Your task to perform on an android device: turn off airplane mode Image 0: 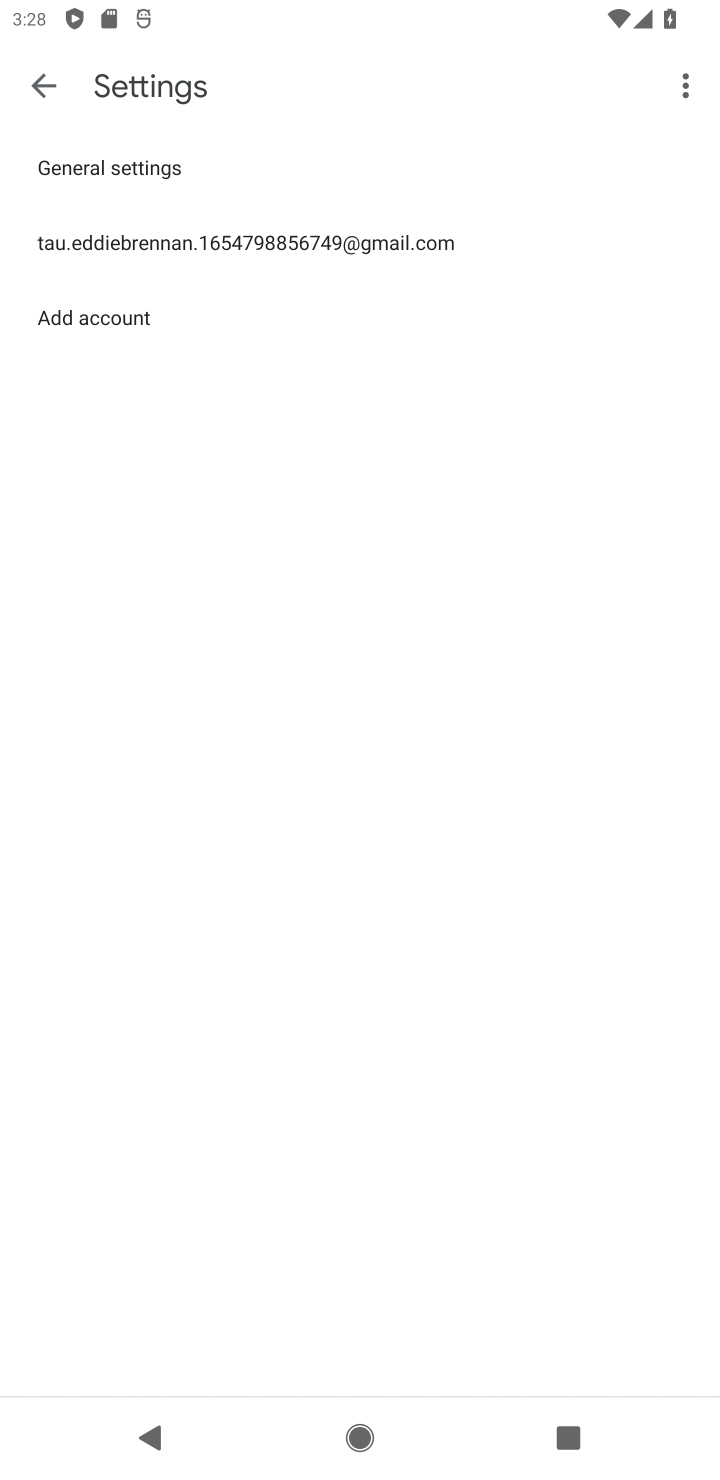
Step 0: press home button
Your task to perform on an android device: turn off airplane mode Image 1: 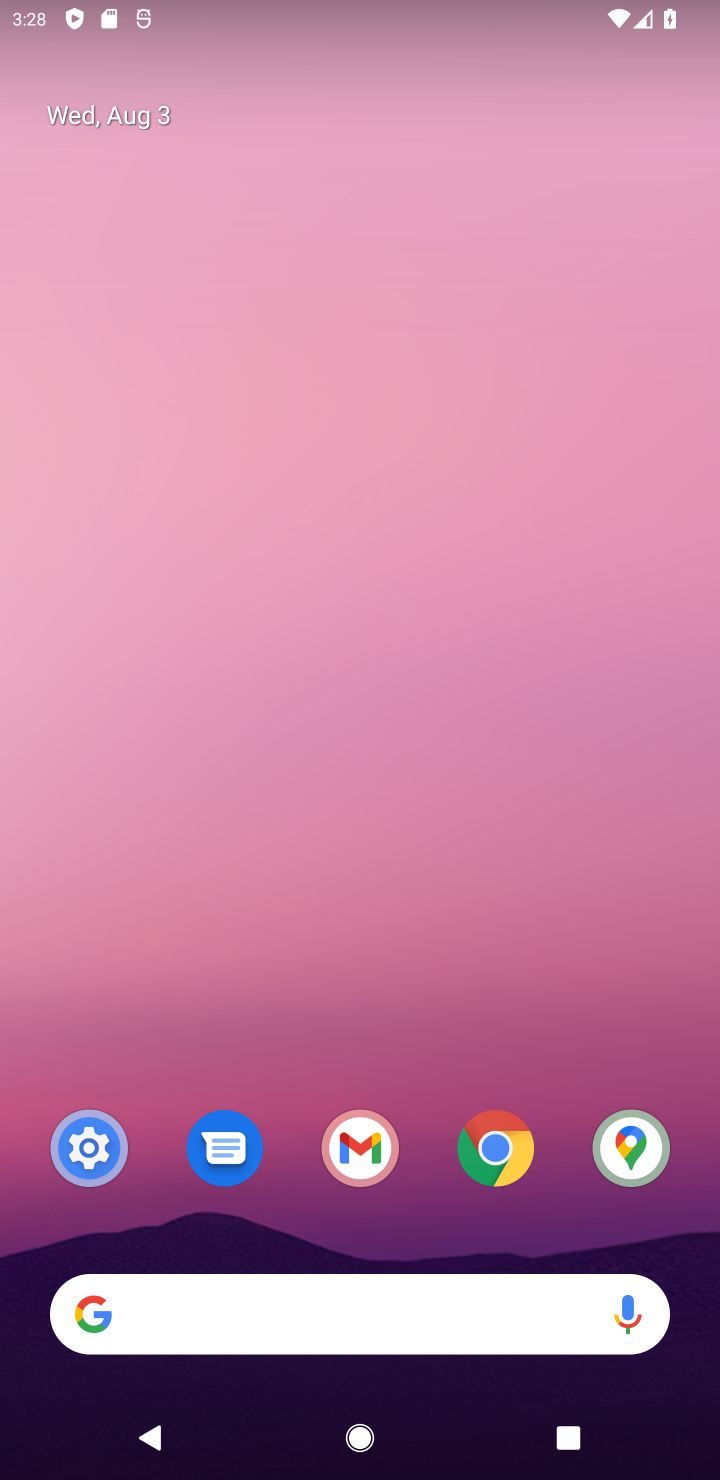
Step 1: drag from (420, 1053) to (439, 62)
Your task to perform on an android device: turn off airplane mode Image 2: 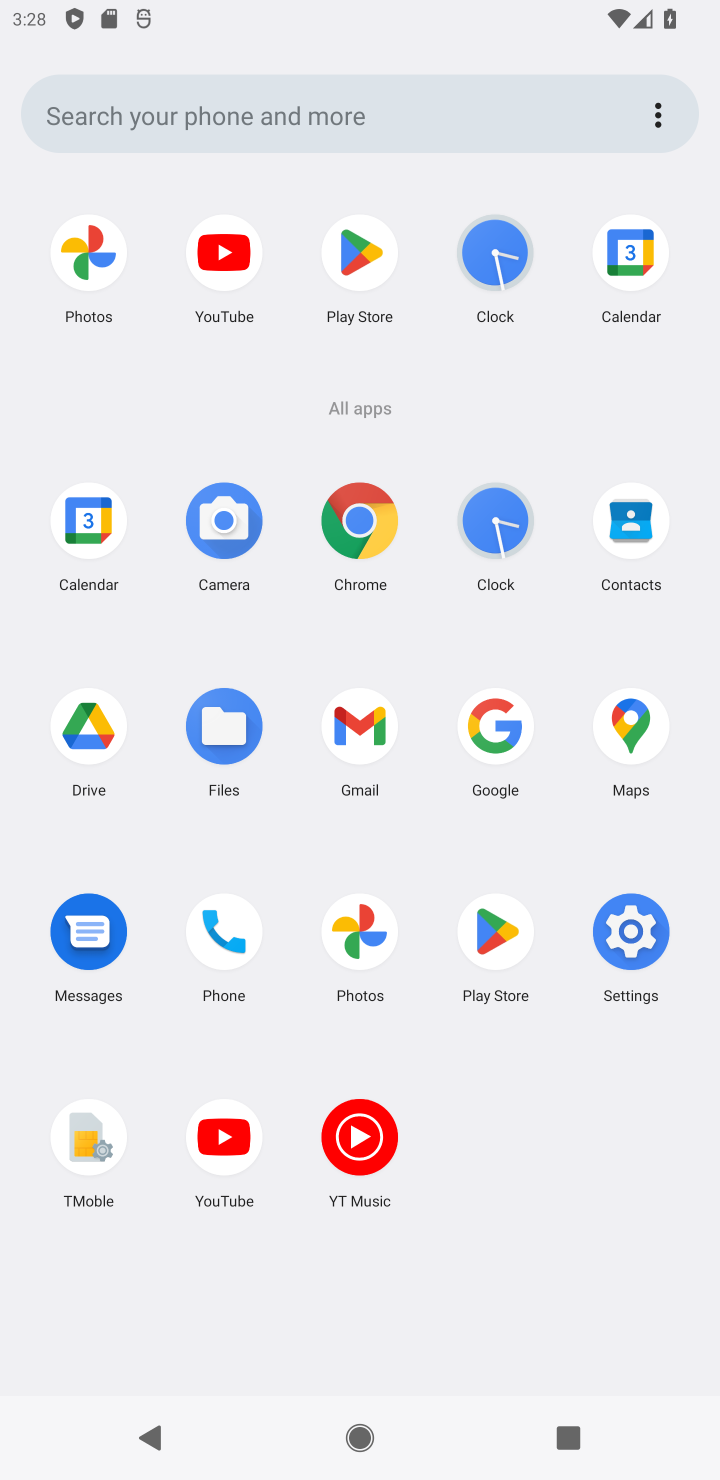
Step 2: click (629, 952)
Your task to perform on an android device: turn off airplane mode Image 3: 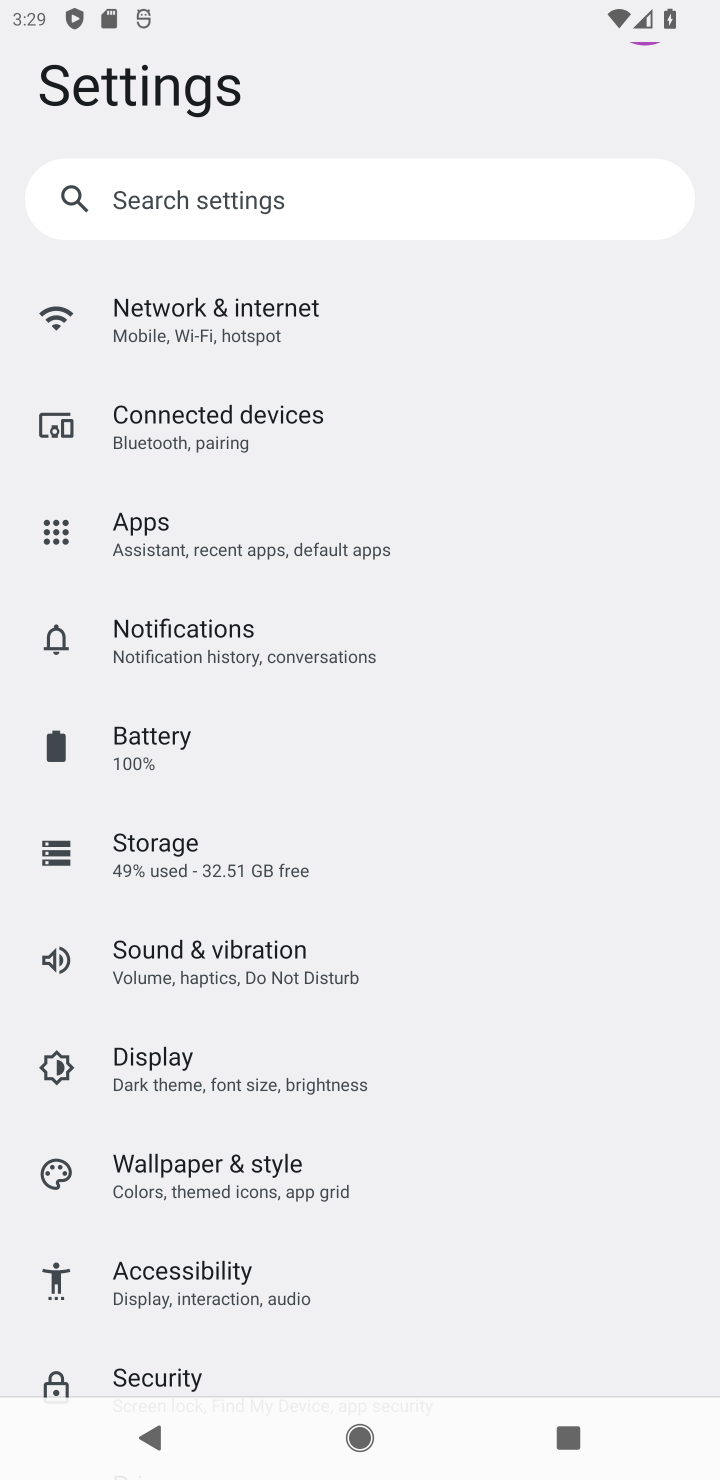
Step 3: drag from (552, 1158) to (569, 917)
Your task to perform on an android device: turn off airplane mode Image 4: 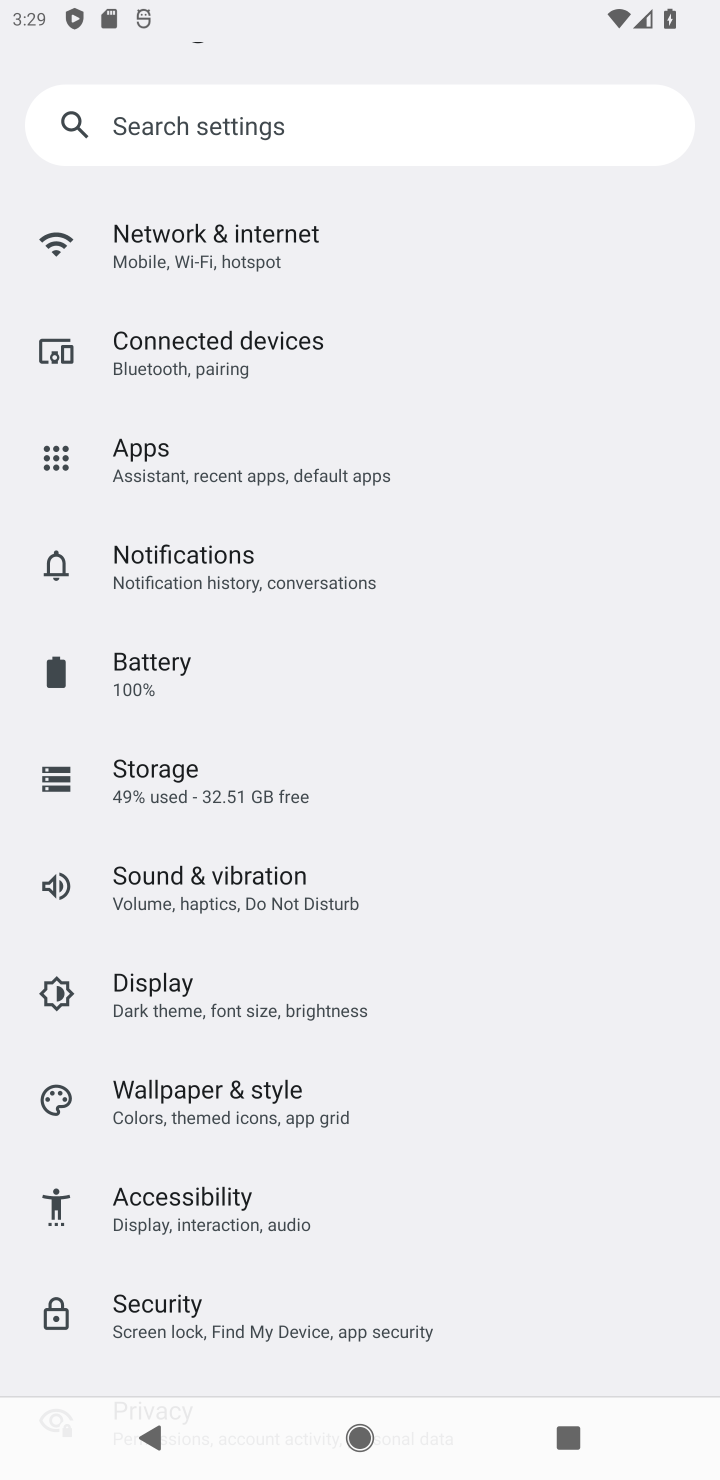
Step 4: drag from (583, 1275) to (615, 855)
Your task to perform on an android device: turn off airplane mode Image 5: 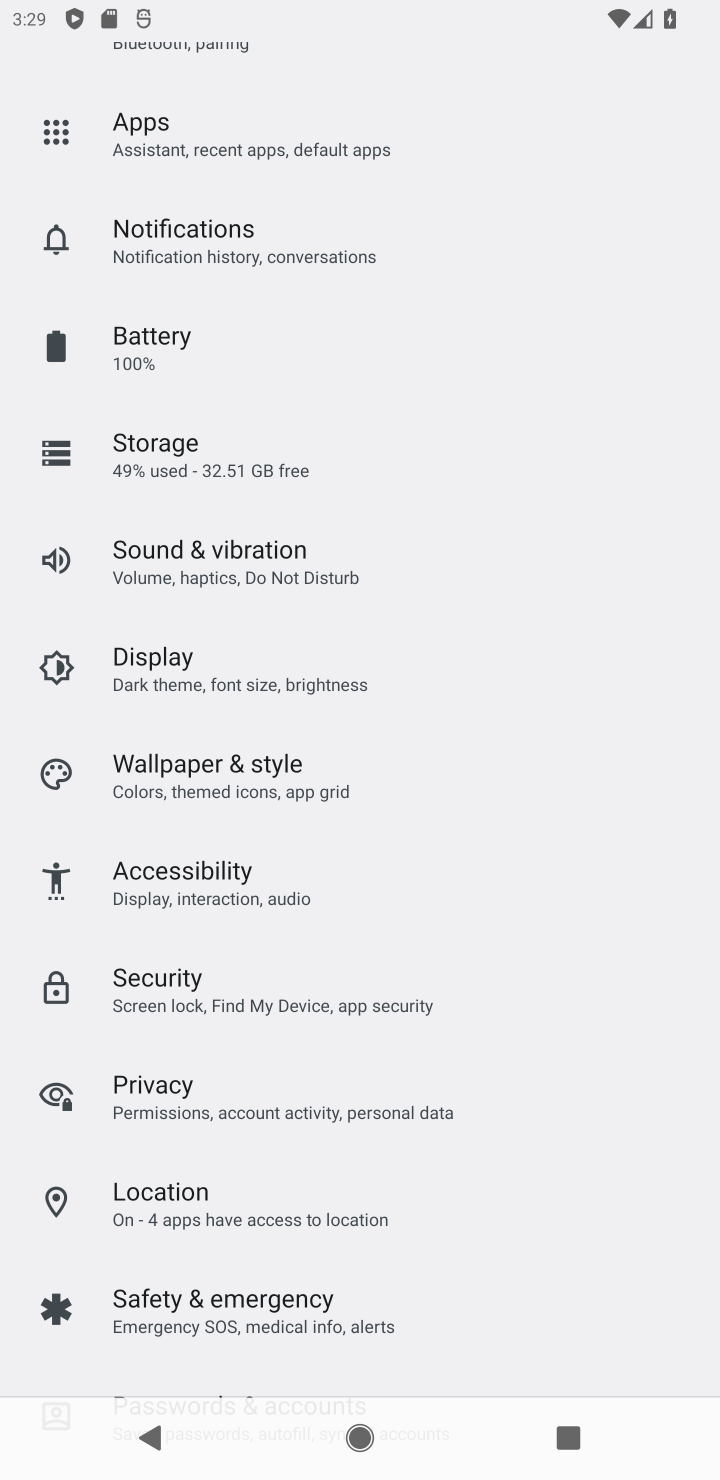
Step 5: drag from (550, 1243) to (577, 913)
Your task to perform on an android device: turn off airplane mode Image 6: 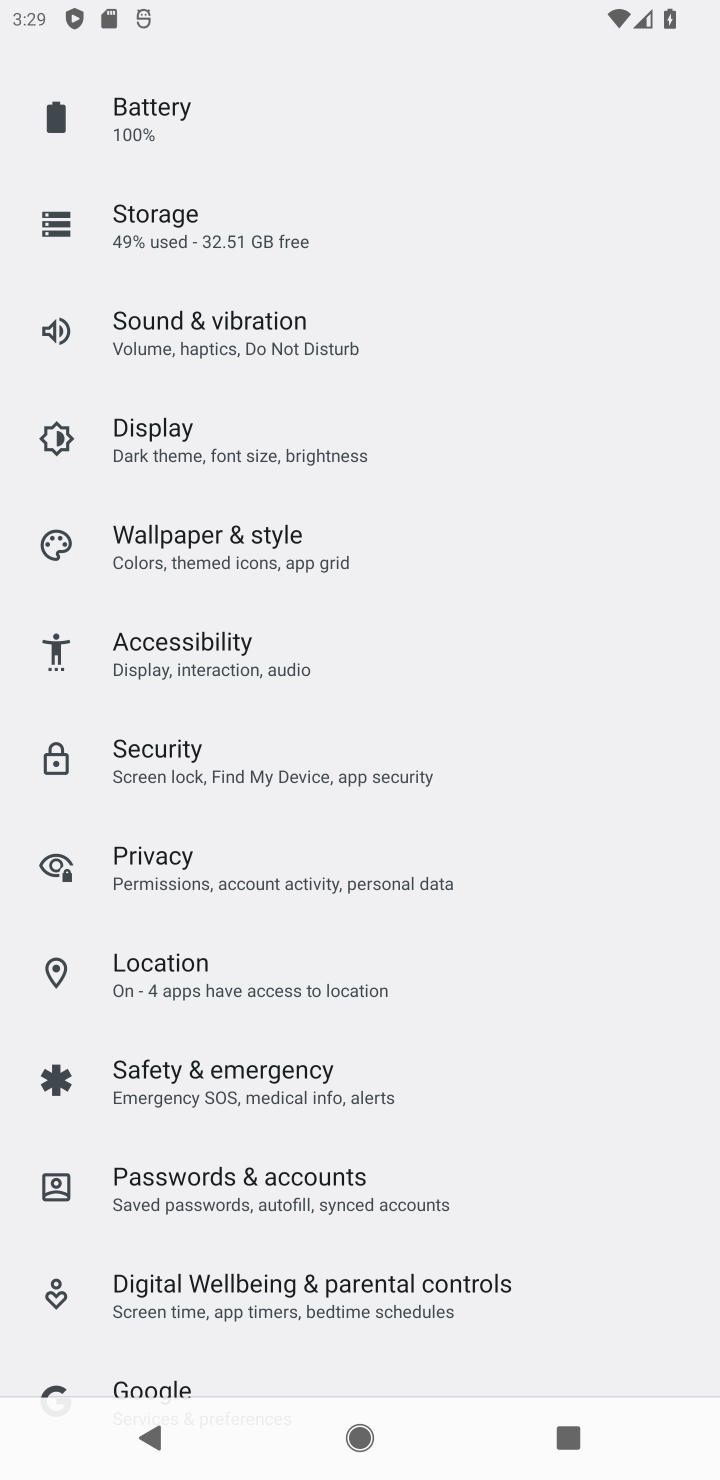
Step 6: drag from (578, 1264) to (619, 867)
Your task to perform on an android device: turn off airplane mode Image 7: 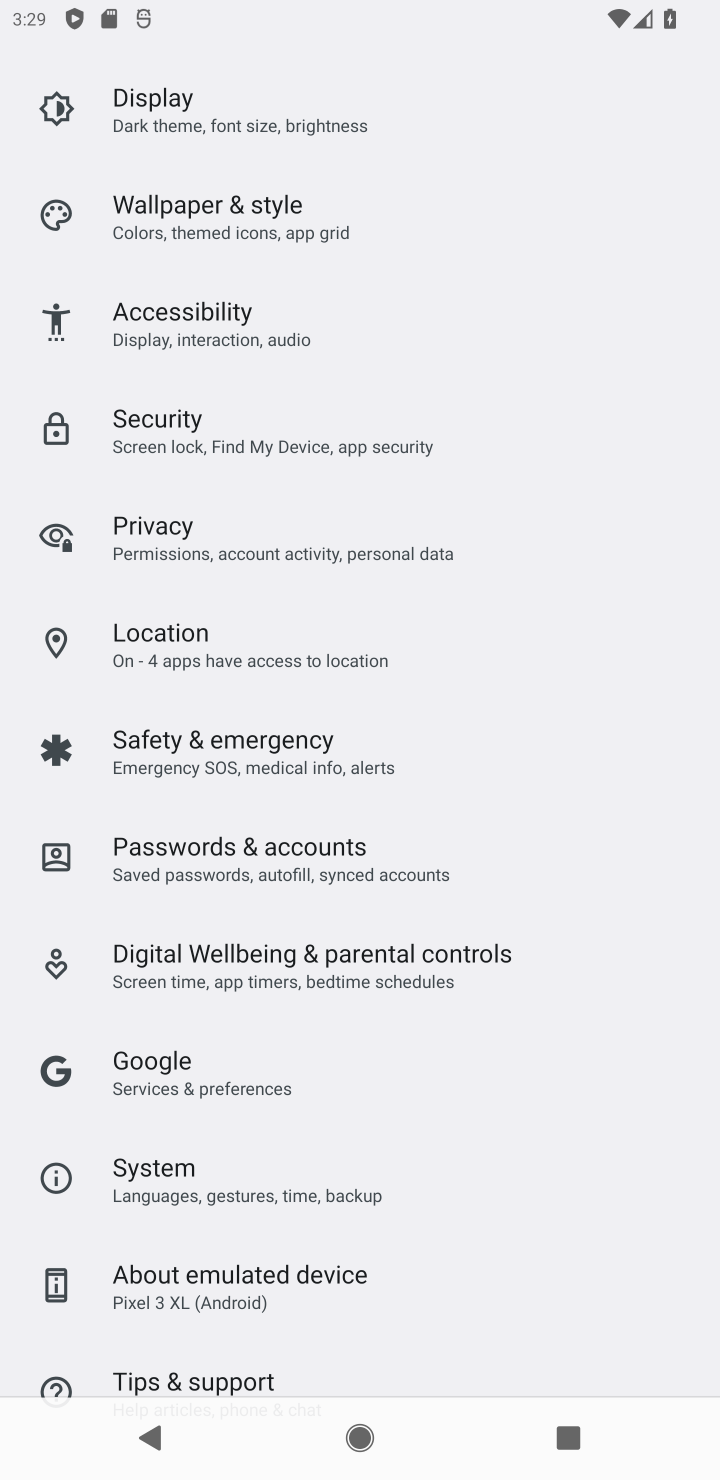
Step 7: drag from (548, 1278) to (612, 682)
Your task to perform on an android device: turn off airplane mode Image 8: 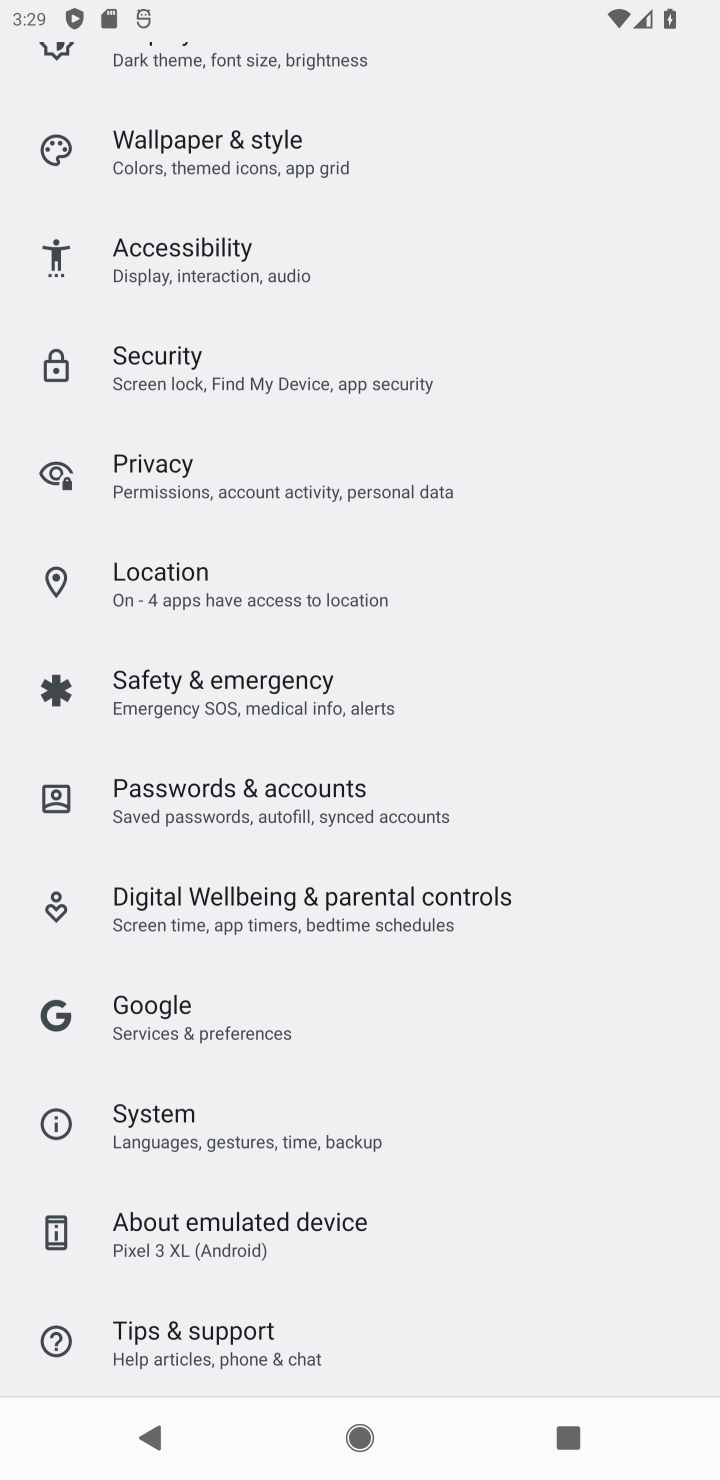
Step 8: drag from (617, 504) to (609, 942)
Your task to perform on an android device: turn off airplane mode Image 9: 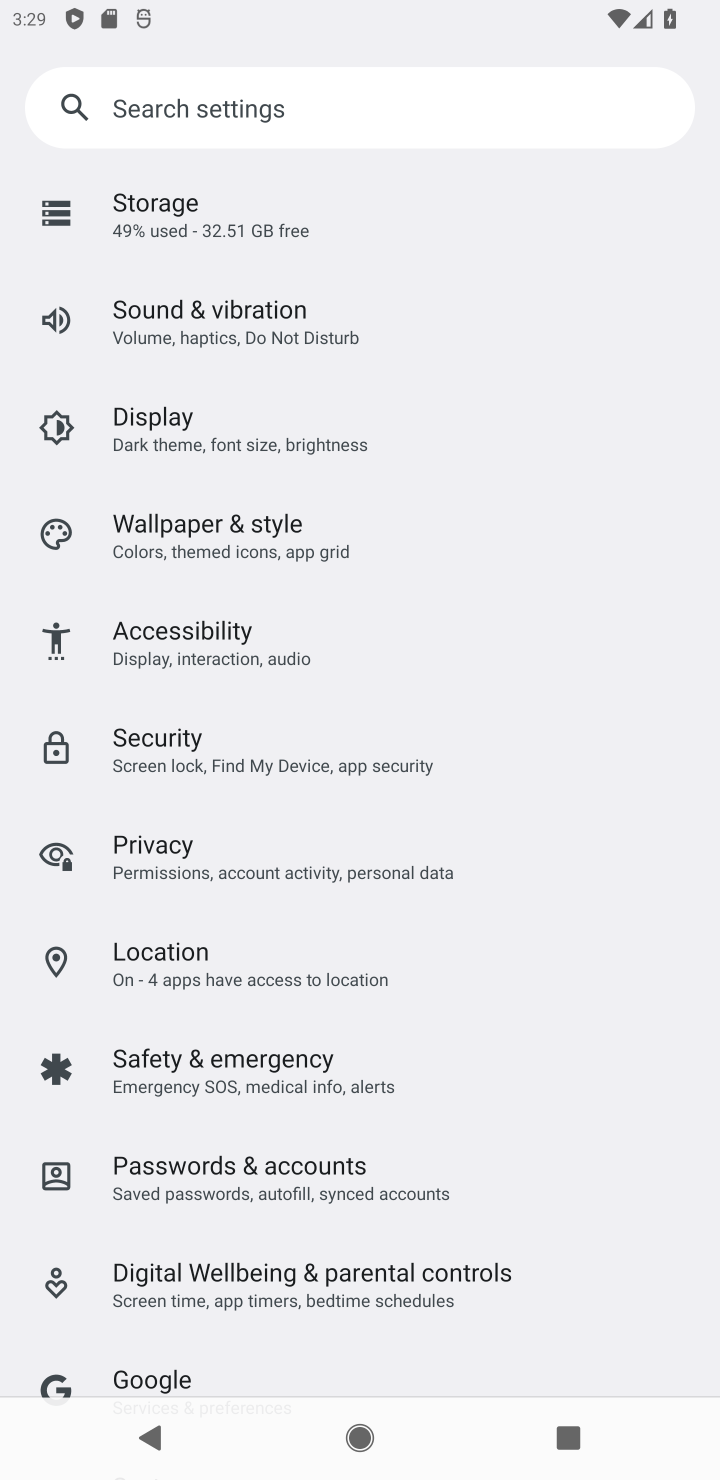
Step 9: drag from (558, 505) to (588, 968)
Your task to perform on an android device: turn off airplane mode Image 10: 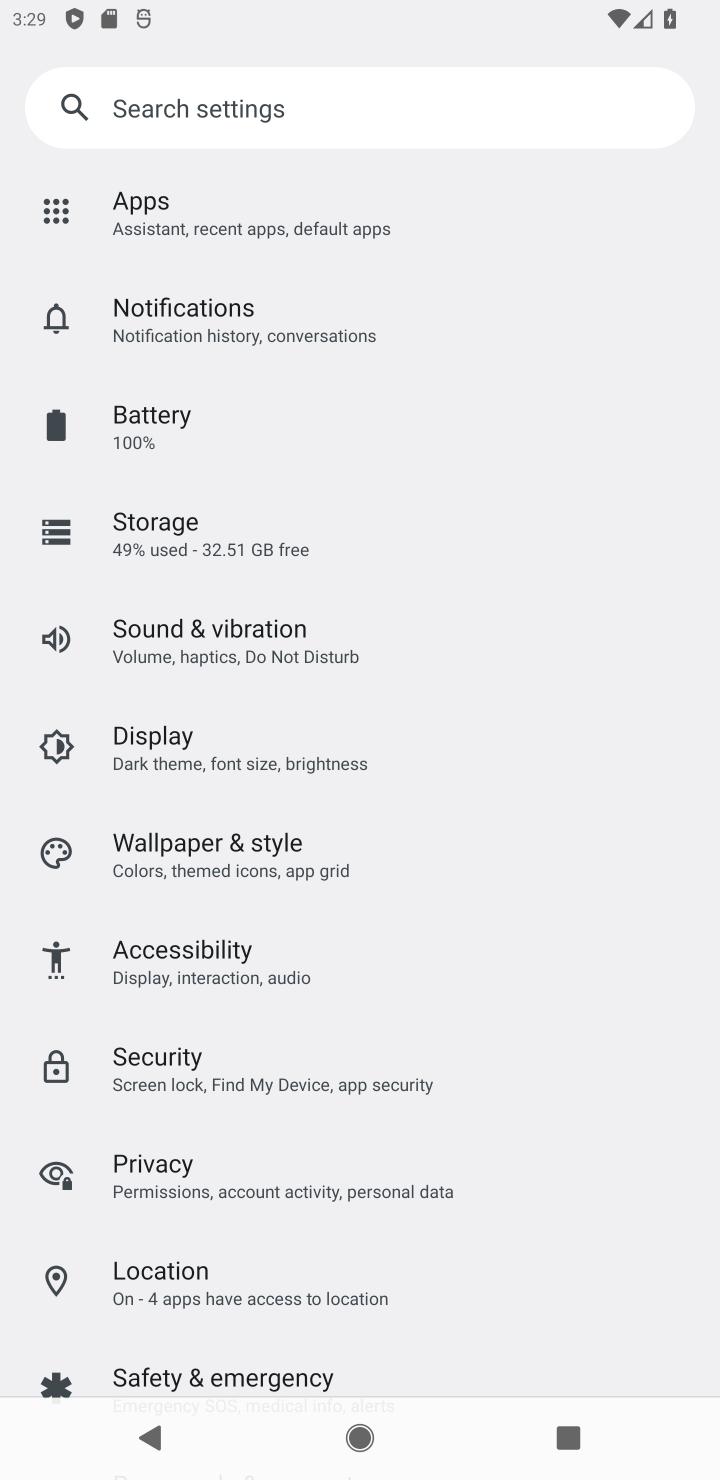
Step 10: drag from (540, 352) to (556, 917)
Your task to perform on an android device: turn off airplane mode Image 11: 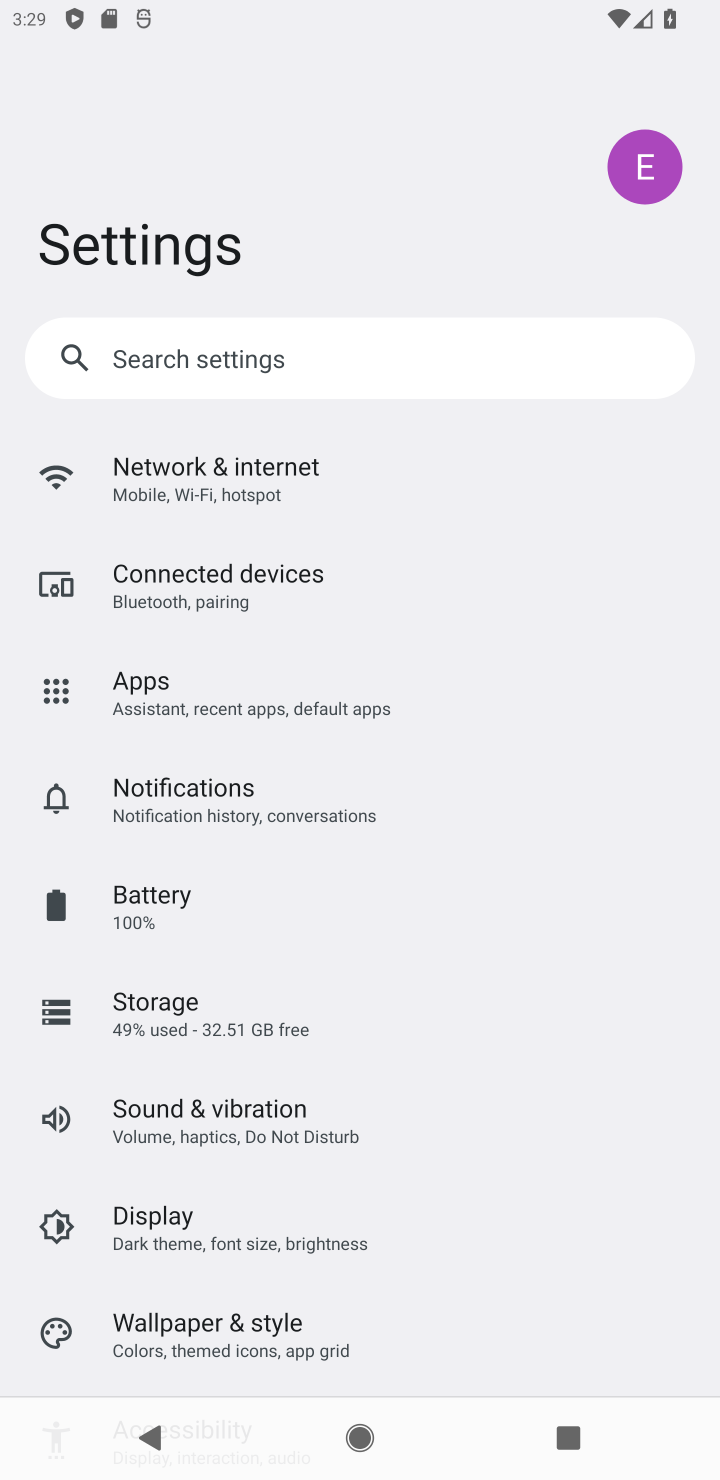
Step 11: click (370, 485)
Your task to perform on an android device: turn off airplane mode Image 12: 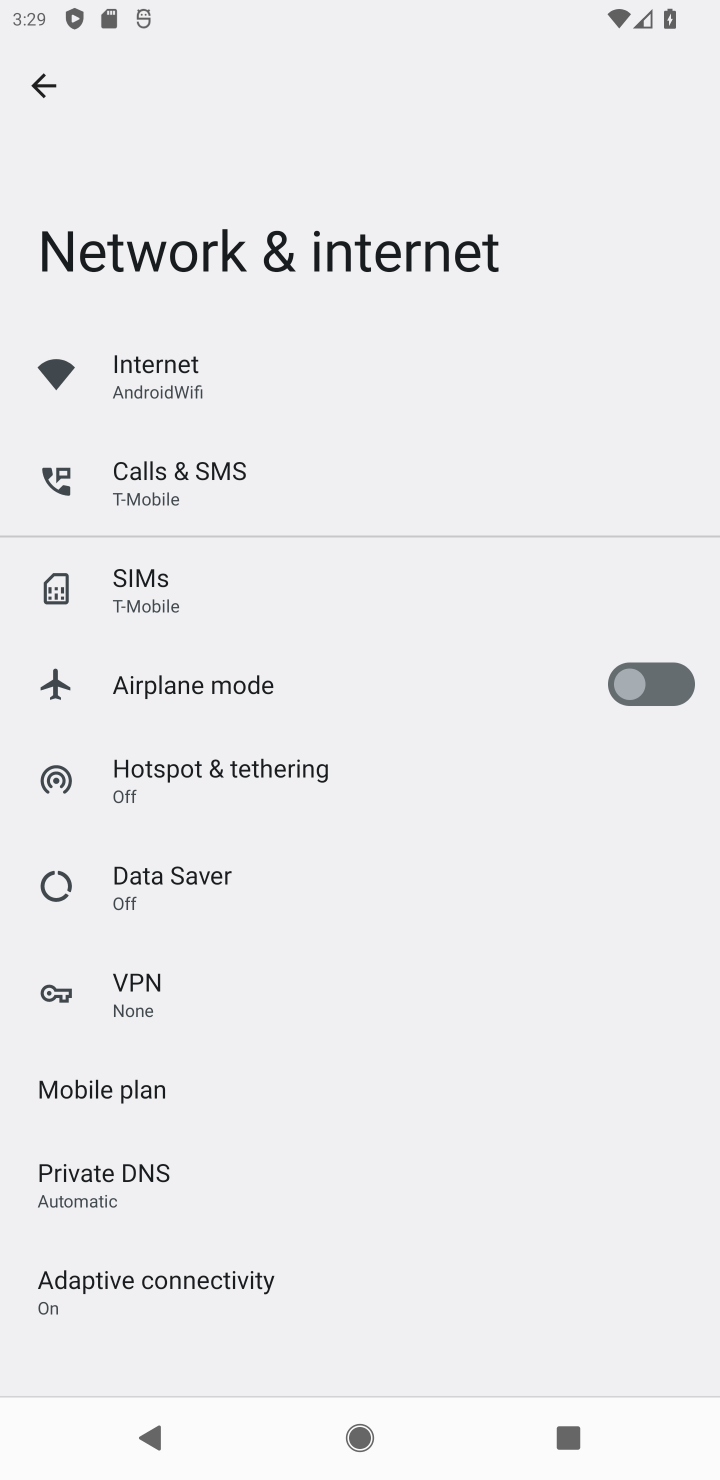
Step 12: task complete